Your task to perform on an android device: Open Android settings Image 0: 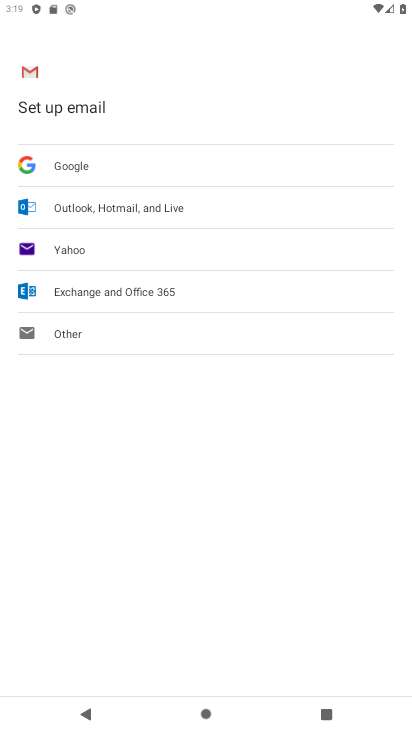
Step 0: press home button
Your task to perform on an android device: Open Android settings Image 1: 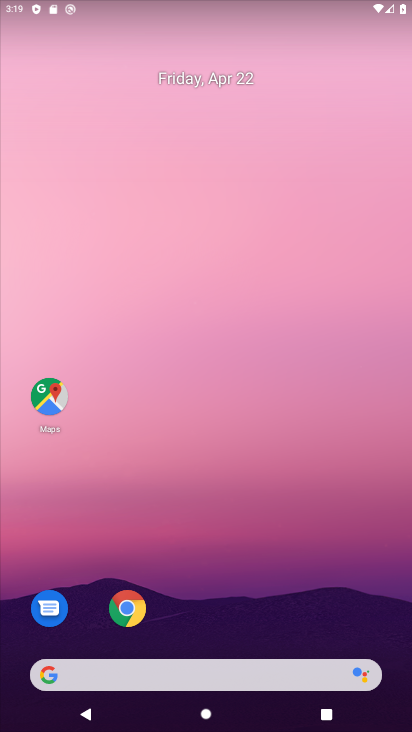
Step 1: drag from (292, 607) to (185, 205)
Your task to perform on an android device: Open Android settings Image 2: 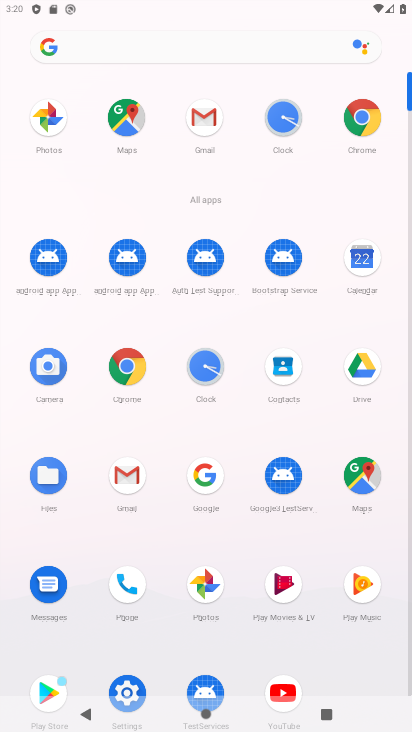
Step 2: click (130, 685)
Your task to perform on an android device: Open Android settings Image 3: 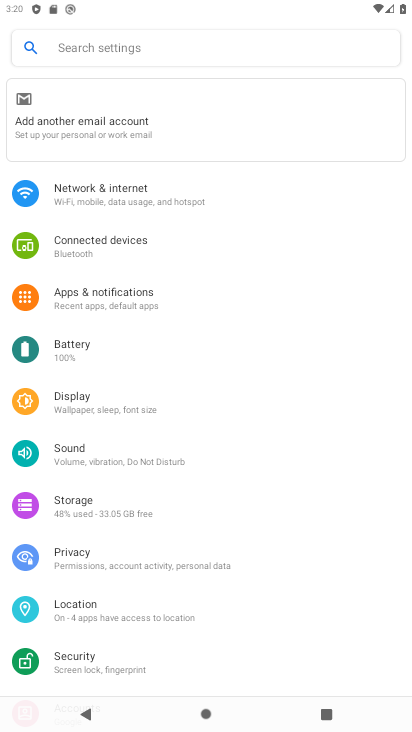
Step 3: task complete